Your task to perform on an android device: View the shopping cart on newegg. Search for bose soundsport free on newegg, select the first entry, add it to the cart, then select checkout. Image 0: 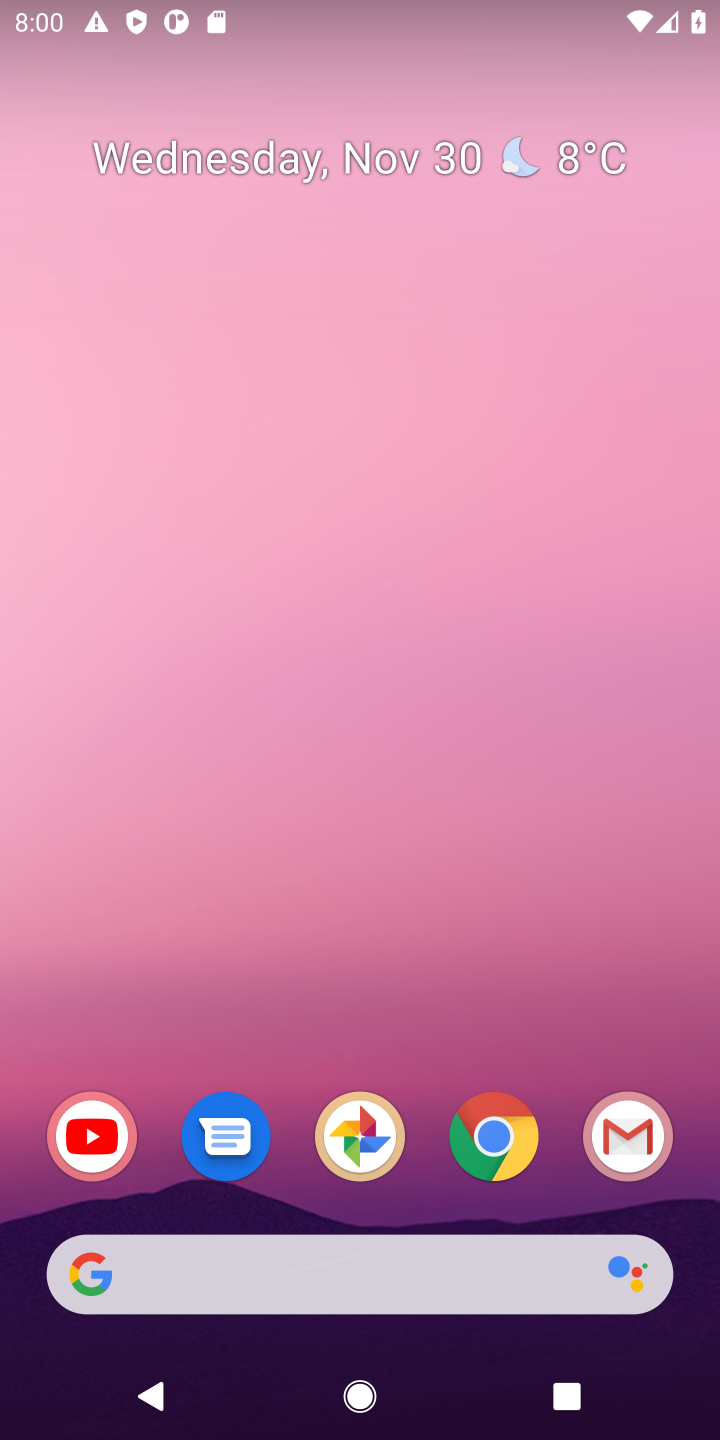
Step 0: click (529, 1136)
Your task to perform on an android device: View the shopping cart on newegg. Search for bose soundsport free on newegg, select the first entry, add it to the cart, then select checkout. Image 1: 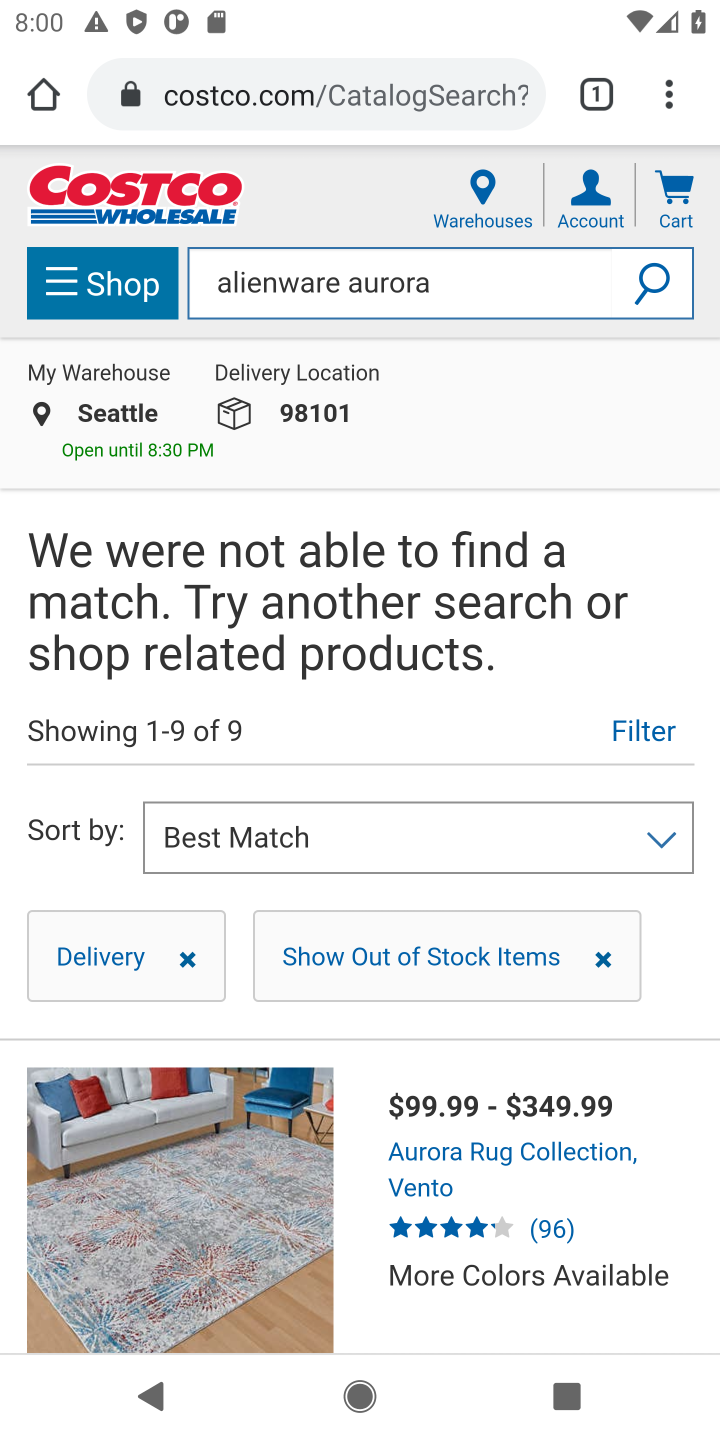
Step 1: click (280, 101)
Your task to perform on an android device: View the shopping cart on newegg. Search for bose soundsport free on newegg, select the first entry, add it to the cart, then select checkout. Image 2: 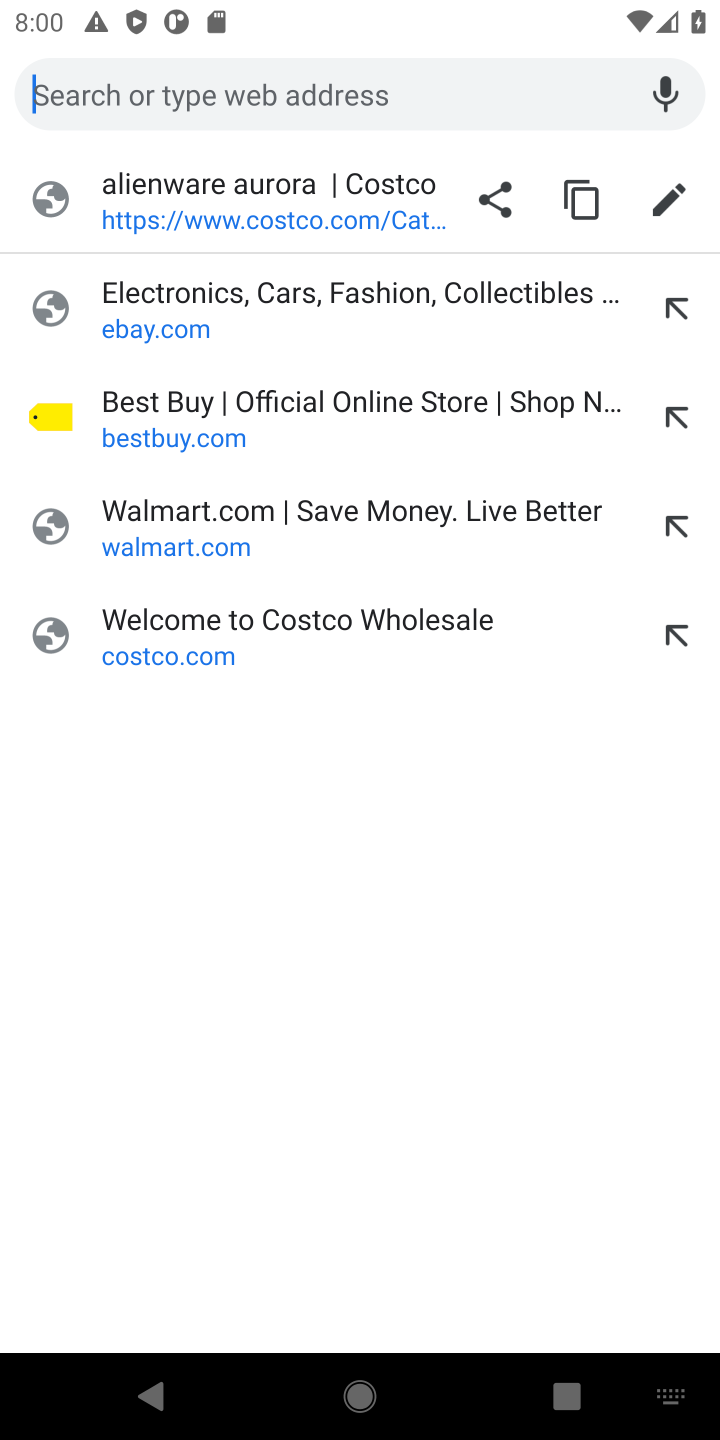
Step 2: type "newegg.com"
Your task to perform on an android device: View the shopping cart on newegg. Search for bose soundsport free on newegg, select the first entry, add it to the cart, then select checkout. Image 3: 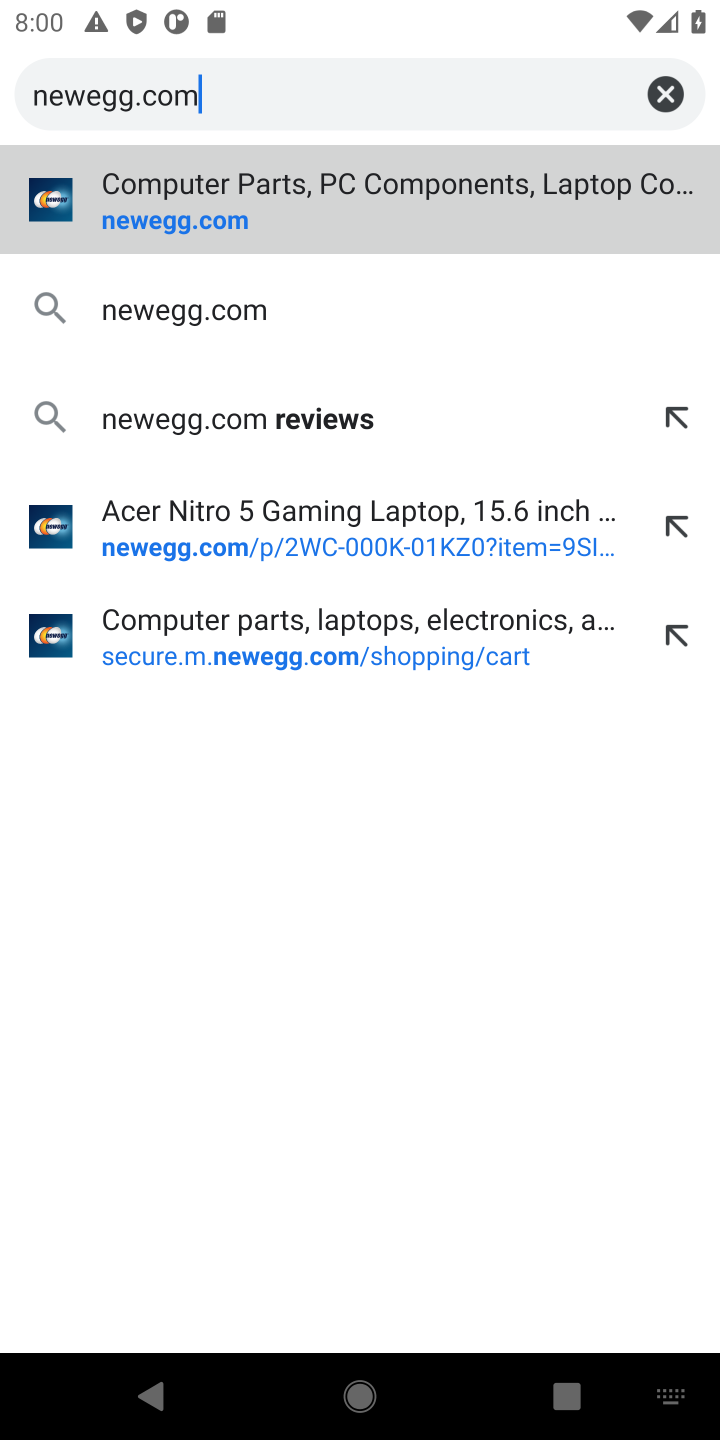
Step 3: click (185, 219)
Your task to perform on an android device: View the shopping cart on newegg. Search for bose soundsport free on newegg, select the first entry, add it to the cart, then select checkout. Image 4: 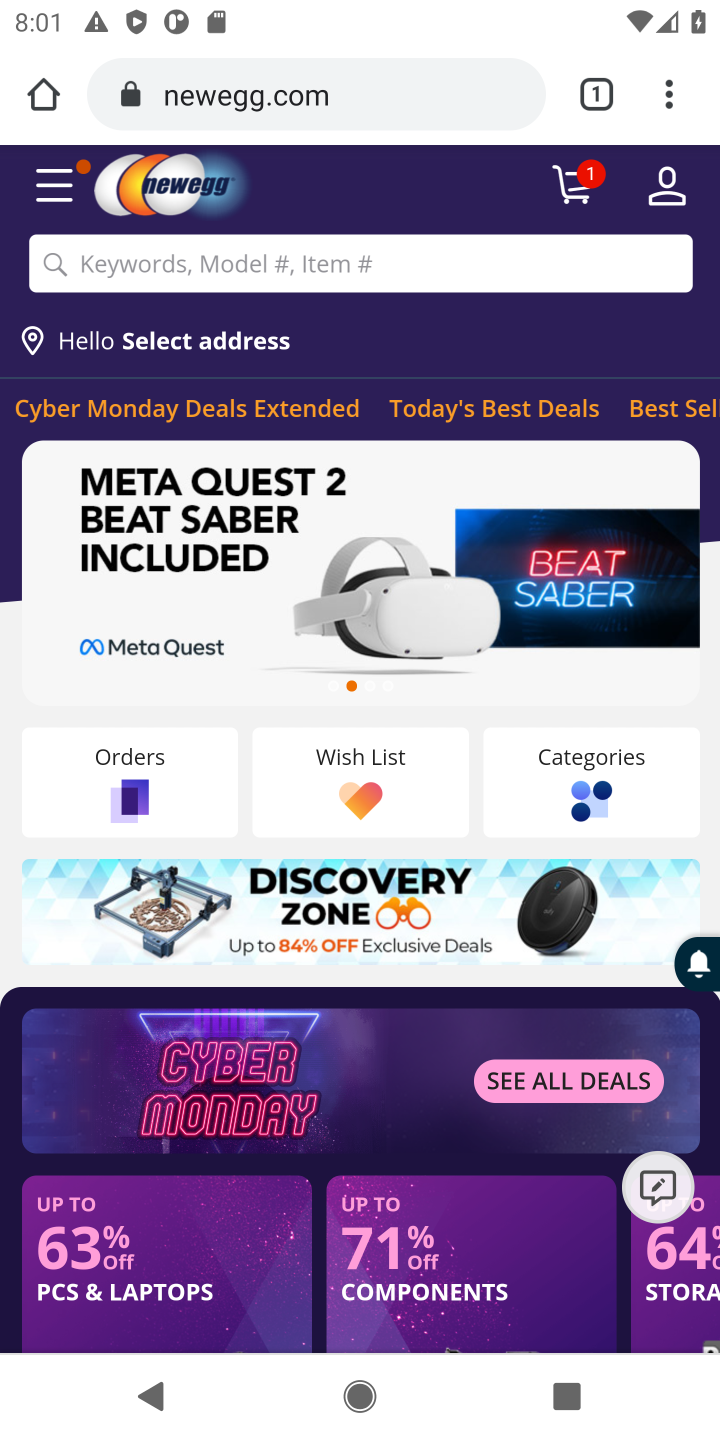
Step 4: click (581, 208)
Your task to perform on an android device: View the shopping cart on newegg. Search for bose soundsport free on newegg, select the first entry, add it to the cart, then select checkout. Image 5: 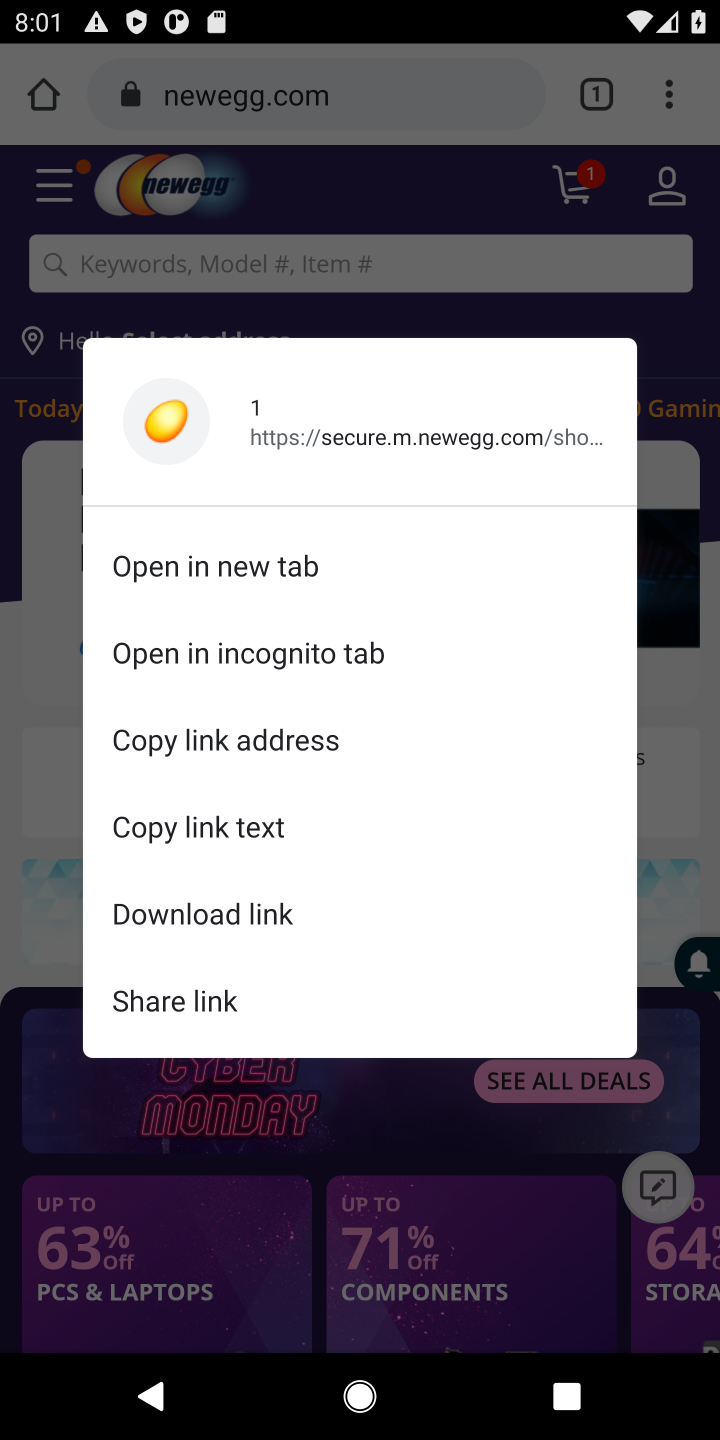
Step 5: click (581, 208)
Your task to perform on an android device: View the shopping cart on newegg. Search for bose soundsport free on newegg, select the first entry, add it to the cart, then select checkout. Image 6: 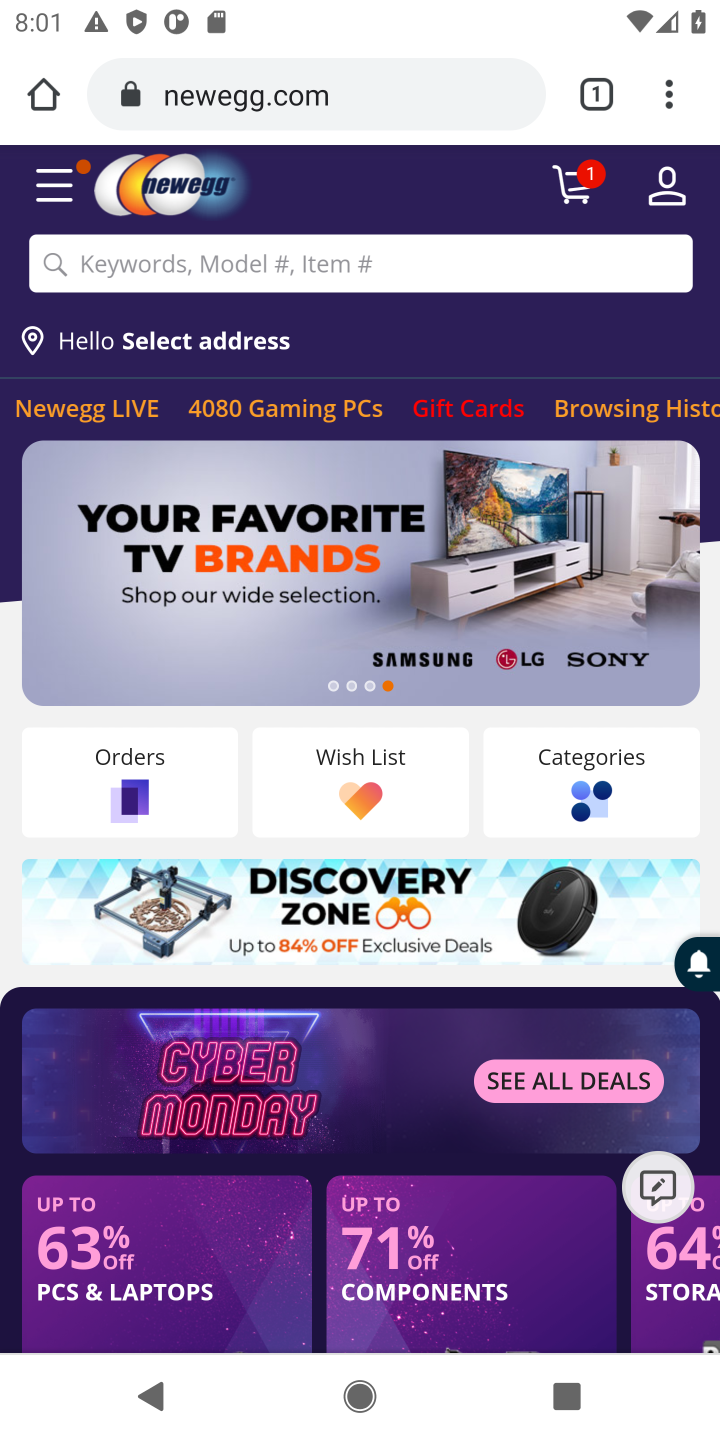
Step 6: click (579, 185)
Your task to perform on an android device: View the shopping cart on newegg. Search for bose soundsport free on newegg, select the first entry, add it to the cart, then select checkout. Image 7: 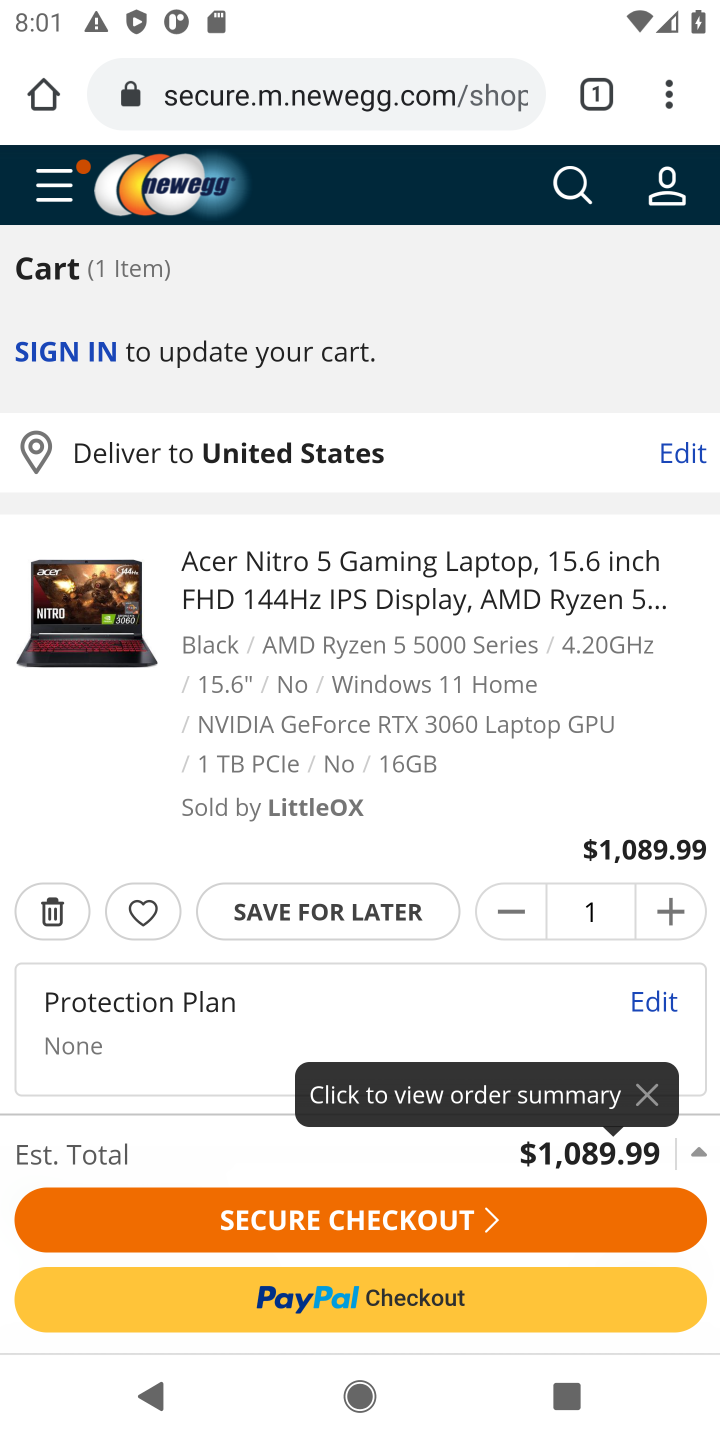
Step 7: click (578, 166)
Your task to perform on an android device: View the shopping cart on newegg. Search for bose soundsport free on newegg, select the first entry, add it to the cart, then select checkout. Image 8: 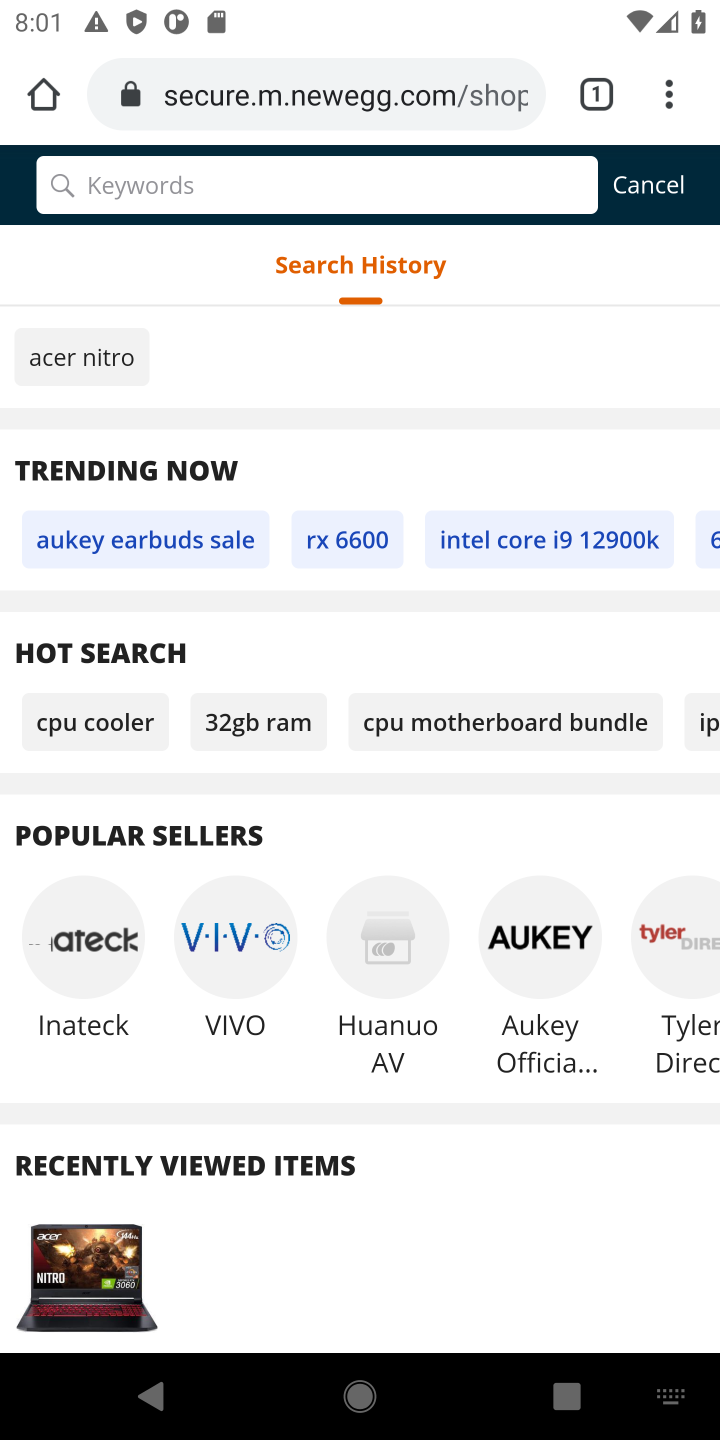
Step 8: type "bose soundsport free"
Your task to perform on an android device: View the shopping cart on newegg. Search for bose soundsport free on newegg, select the first entry, add it to the cart, then select checkout. Image 9: 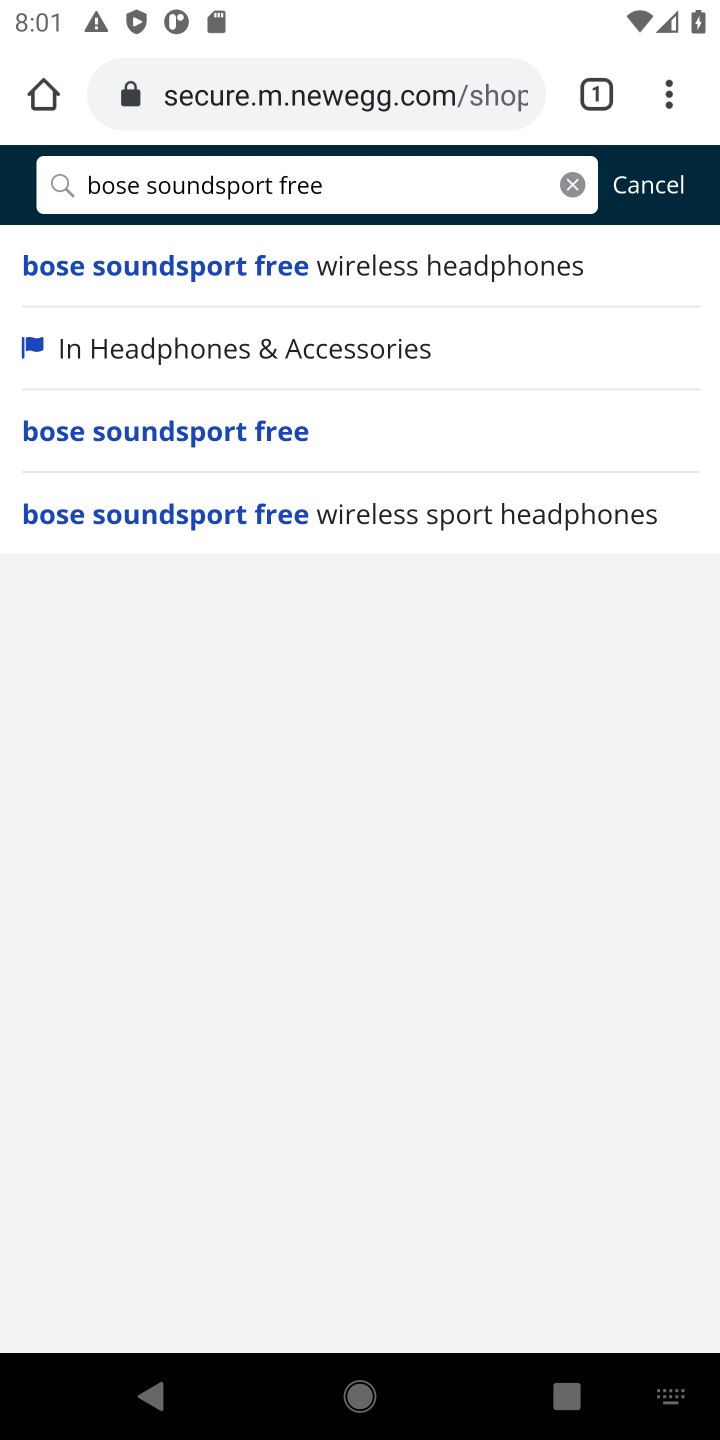
Step 9: click (237, 449)
Your task to perform on an android device: View the shopping cart on newegg. Search for bose soundsport free on newegg, select the first entry, add it to the cart, then select checkout. Image 10: 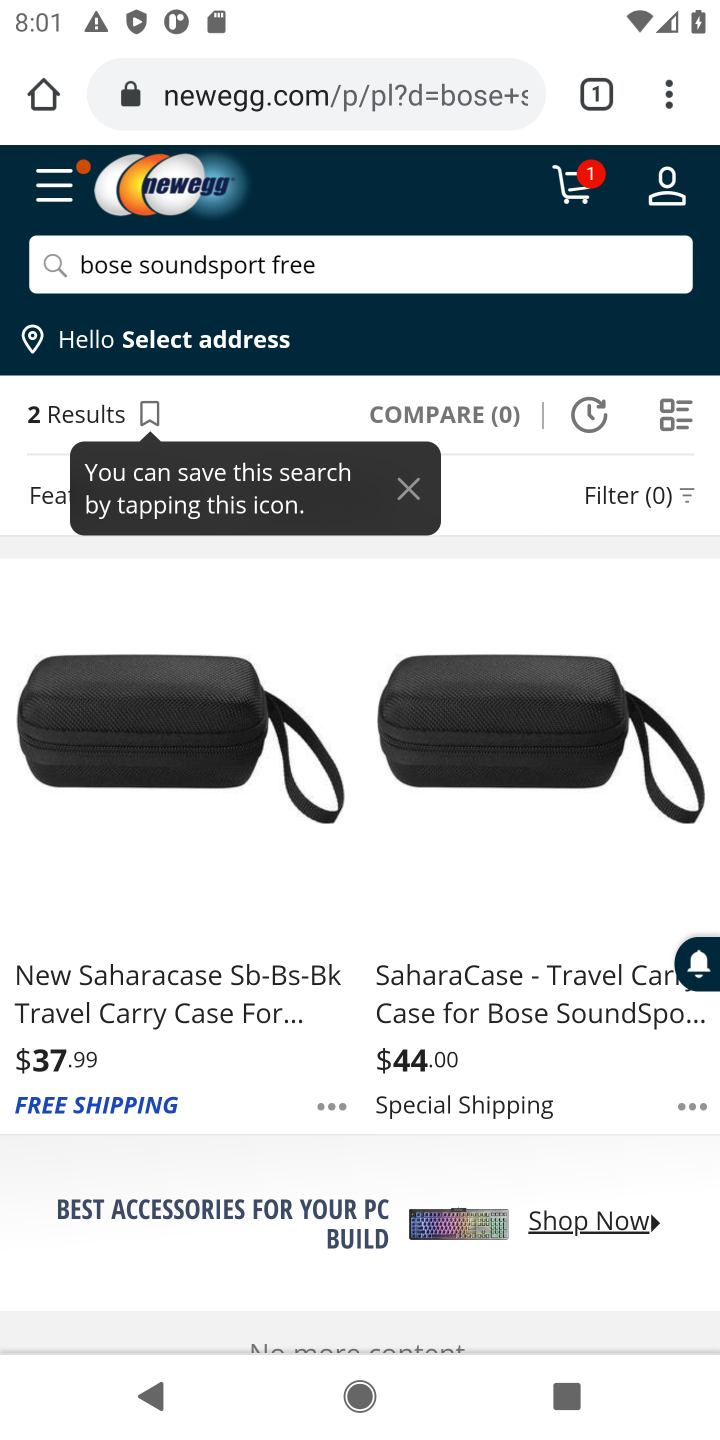
Step 10: click (115, 828)
Your task to perform on an android device: View the shopping cart on newegg. Search for bose soundsport free on newegg, select the first entry, add it to the cart, then select checkout. Image 11: 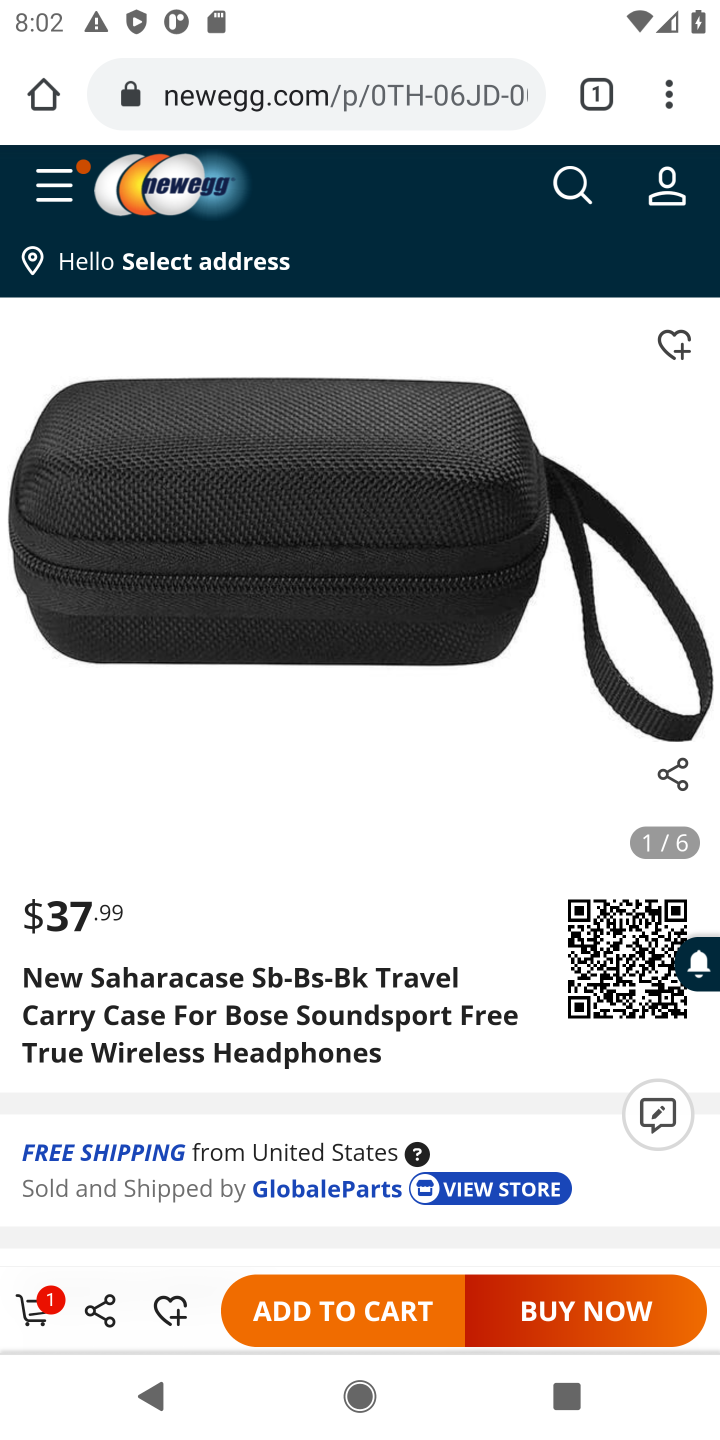
Step 11: click (312, 1306)
Your task to perform on an android device: View the shopping cart on newegg. Search for bose soundsport free on newegg, select the first entry, add it to the cart, then select checkout. Image 12: 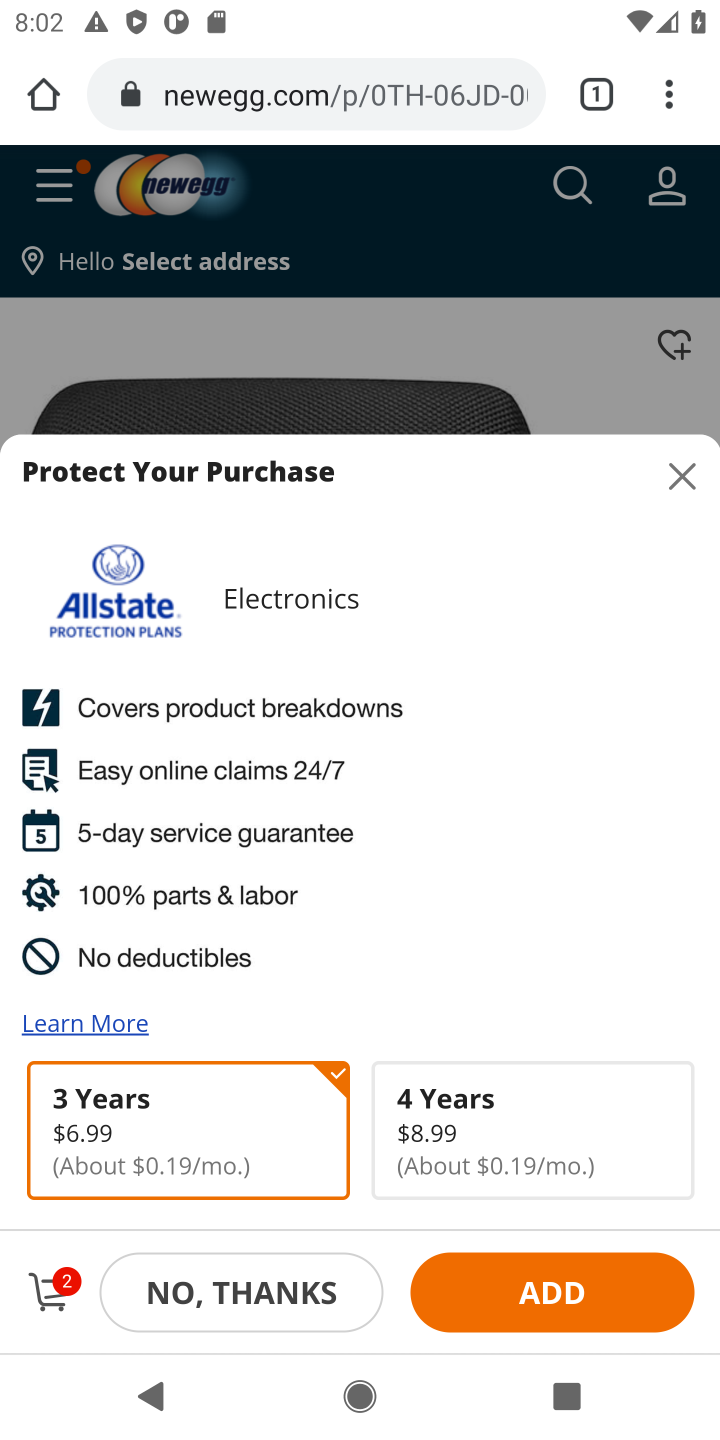
Step 12: click (44, 1296)
Your task to perform on an android device: View the shopping cart on newegg. Search for bose soundsport free on newegg, select the first entry, add it to the cart, then select checkout. Image 13: 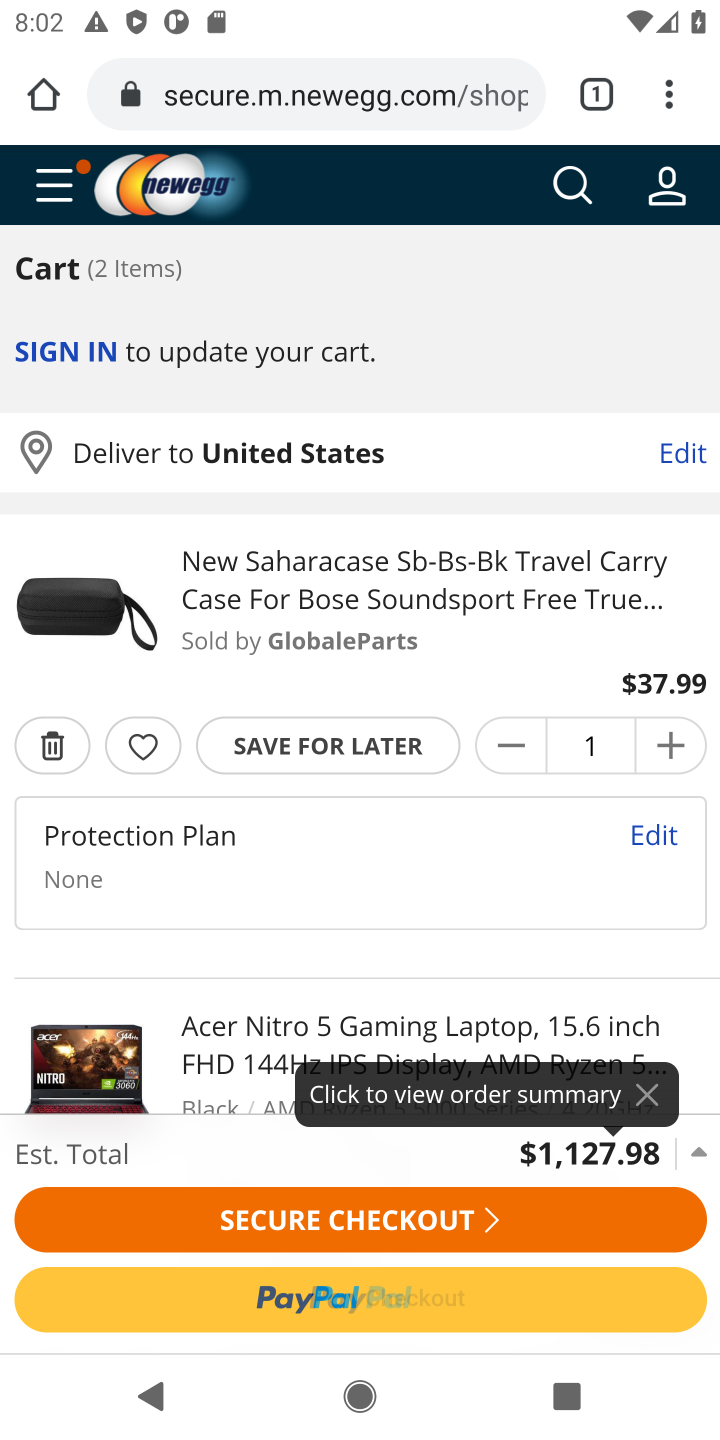
Step 13: click (343, 1226)
Your task to perform on an android device: View the shopping cart on newegg. Search for bose soundsport free on newegg, select the first entry, add it to the cart, then select checkout. Image 14: 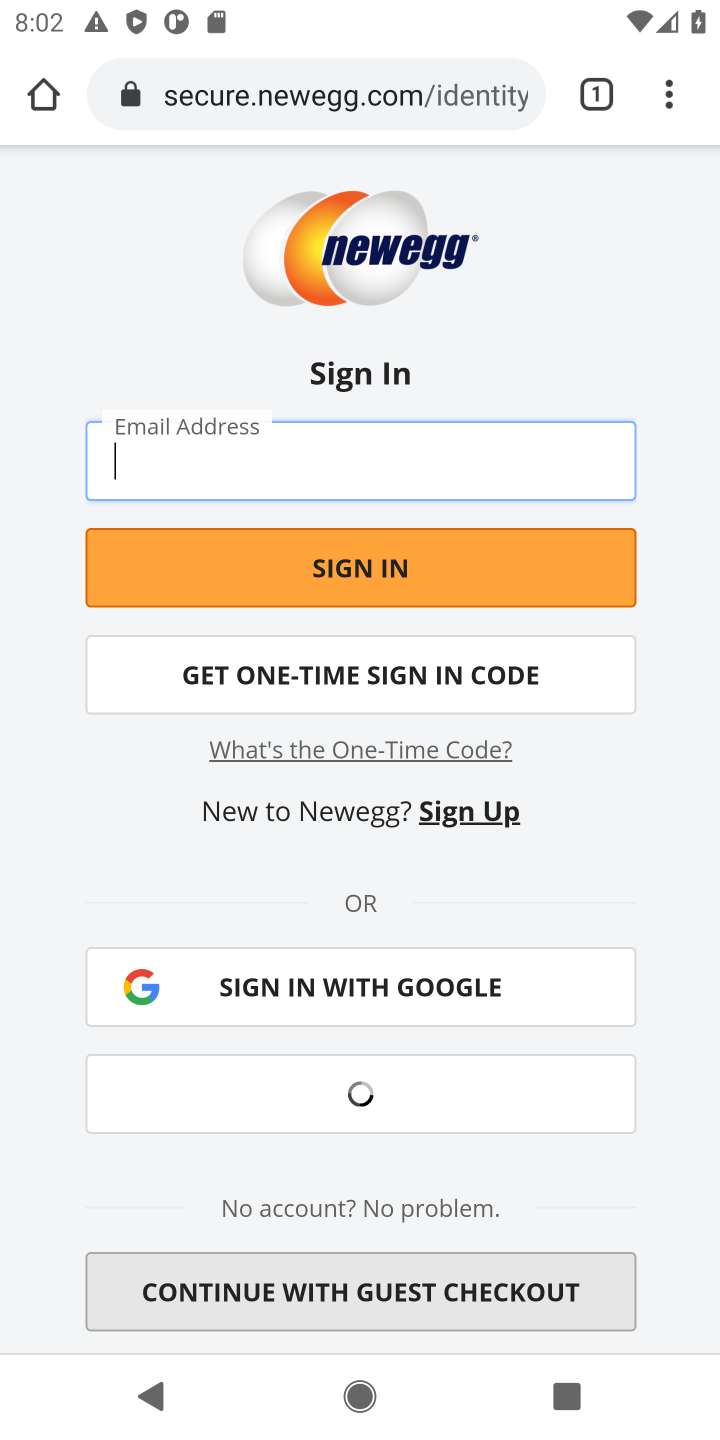
Step 14: task complete